Your task to perform on an android device: search for starred emails in the gmail app Image 0: 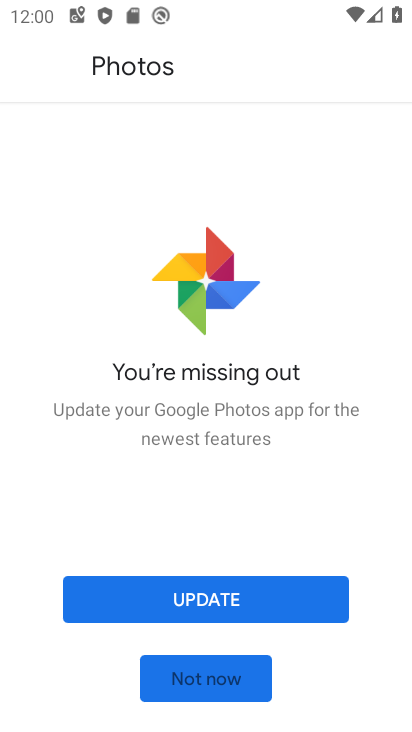
Step 0: press home button
Your task to perform on an android device: search for starred emails in the gmail app Image 1: 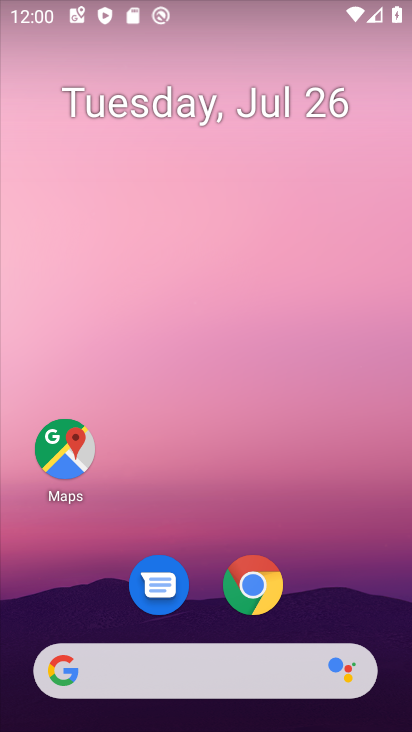
Step 1: drag from (314, 599) to (302, 53)
Your task to perform on an android device: search for starred emails in the gmail app Image 2: 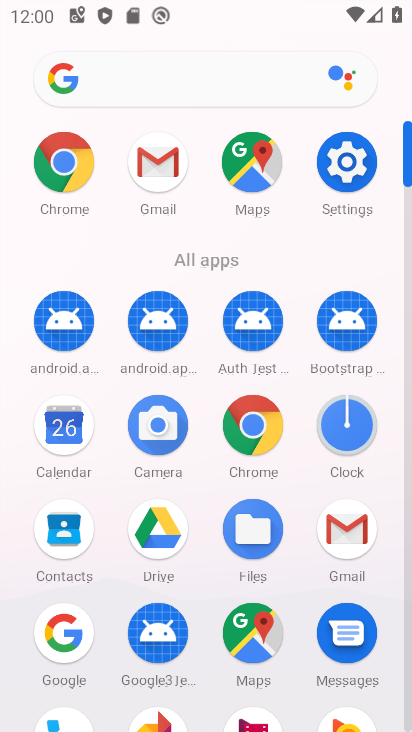
Step 2: click (161, 163)
Your task to perform on an android device: search for starred emails in the gmail app Image 3: 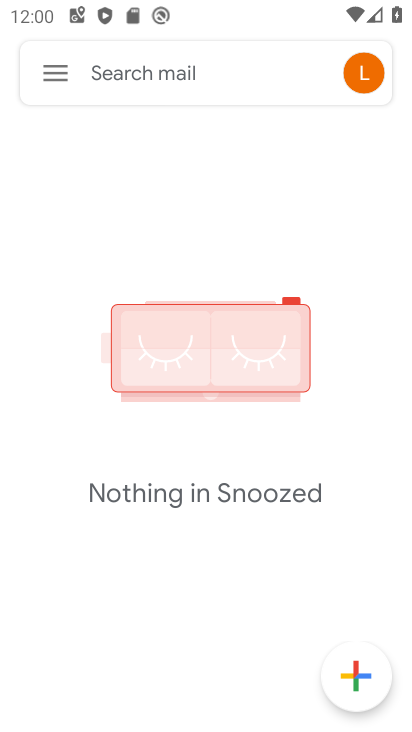
Step 3: click (53, 61)
Your task to perform on an android device: search for starred emails in the gmail app Image 4: 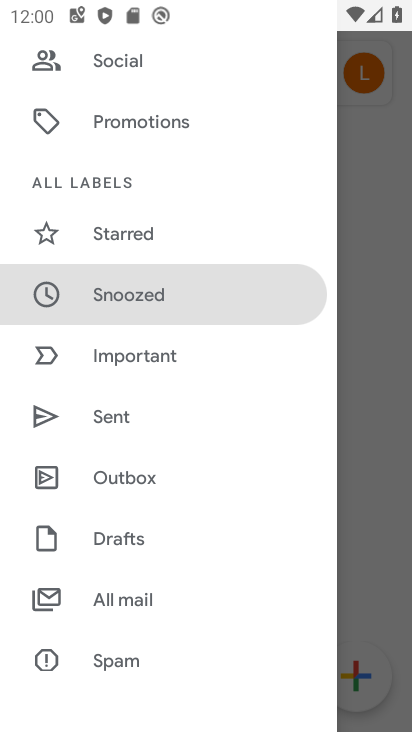
Step 4: click (137, 232)
Your task to perform on an android device: search for starred emails in the gmail app Image 5: 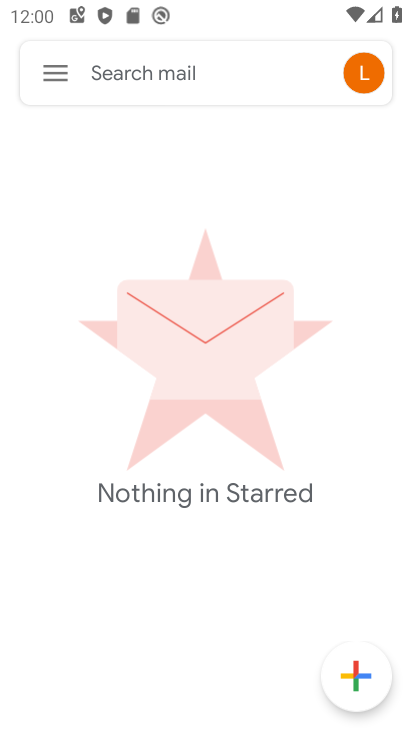
Step 5: task complete